Your task to perform on an android device: Open notification settings Image 0: 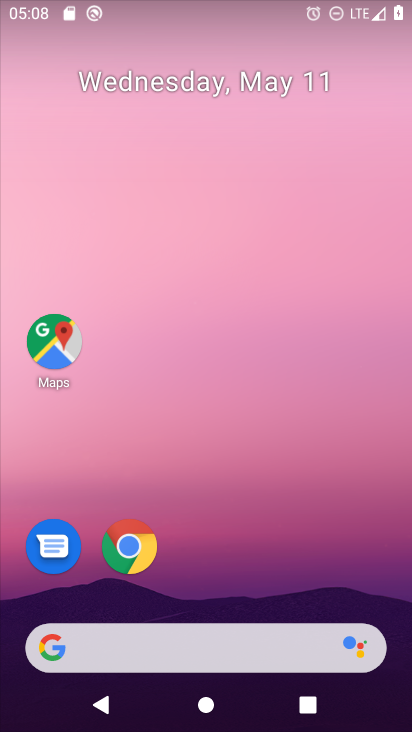
Step 0: drag from (255, 617) to (236, 43)
Your task to perform on an android device: Open notification settings Image 1: 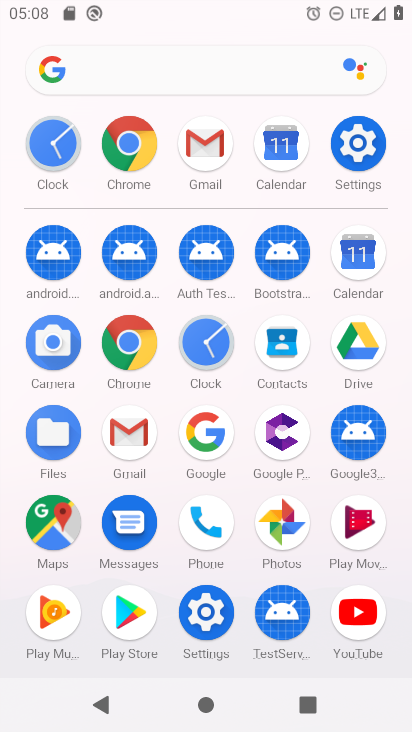
Step 1: click (350, 161)
Your task to perform on an android device: Open notification settings Image 2: 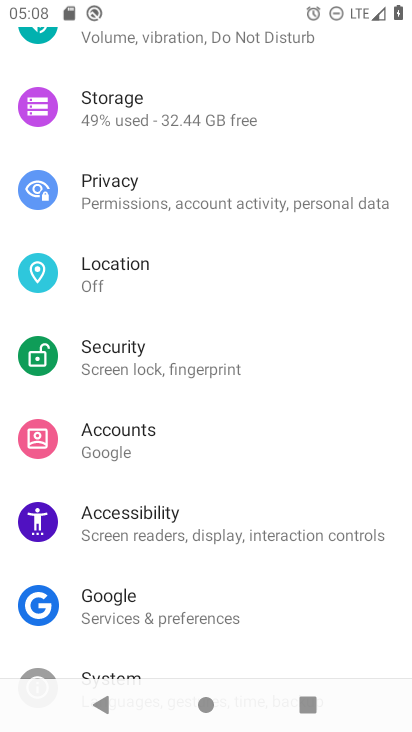
Step 2: drag from (248, 328) to (264, 682)
Your task to perform on an android device: Open notification settings Image 3: 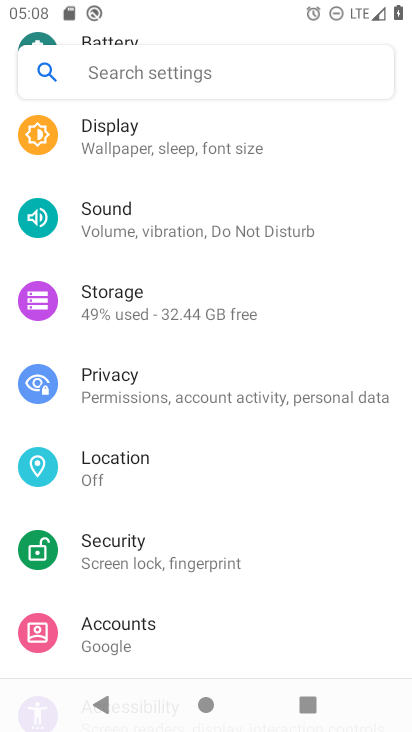
Step 3: drag from (244, 254) to (200, 721)
Your task to perform on an android device: Open notification settings Image 4: 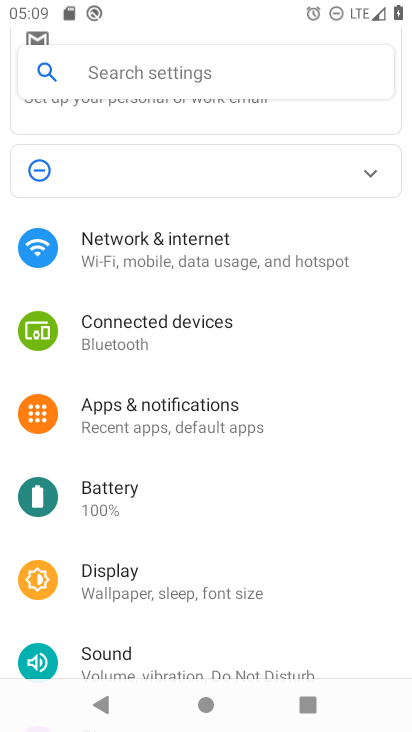
Step 4: click (194, 409)
Your task to perform on an android device: Open notification settings Image 5: 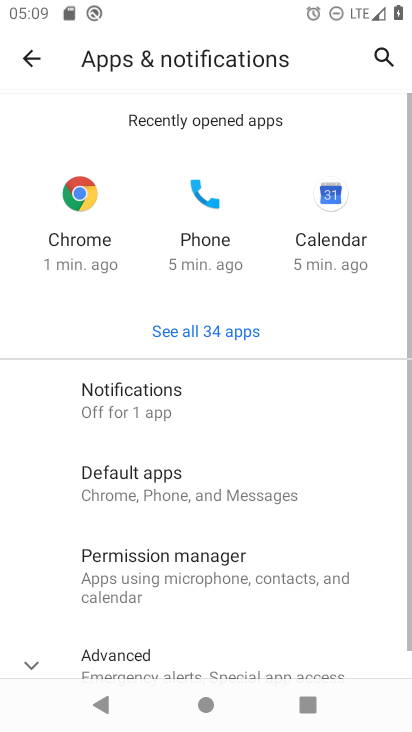
Step 5: drag from (206, 586) to (246, 73)
Your task to perform on an android device: Open notification settings Image 6: 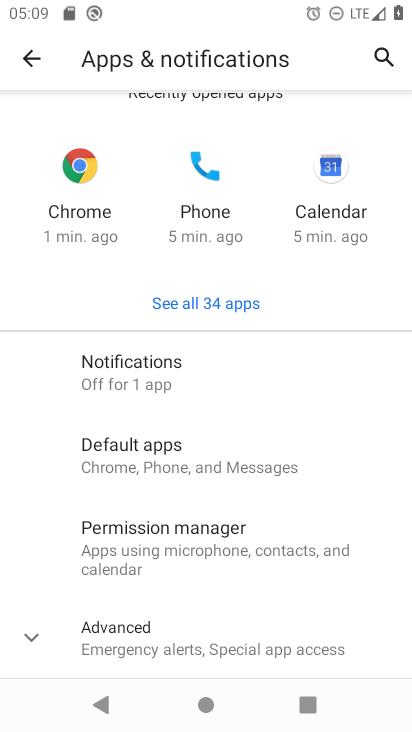
Step 6: click (151, 641)
Your task to perform on an android device: Open notification settings Image 7: 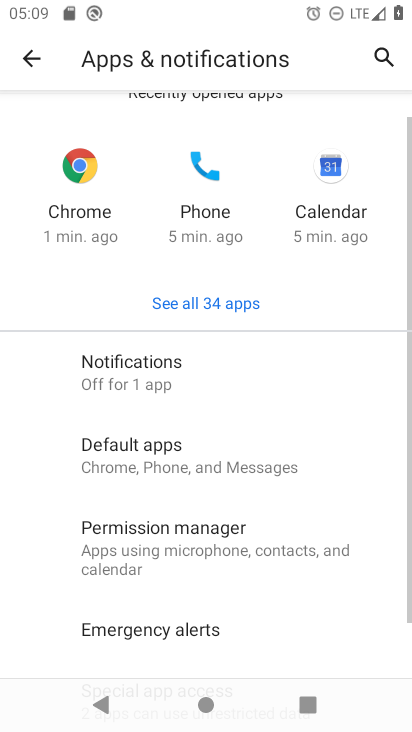
Step 7: task complete